Your task to perform on an android device: Open the Play Movies app and select the watchlist tab. Image 0: 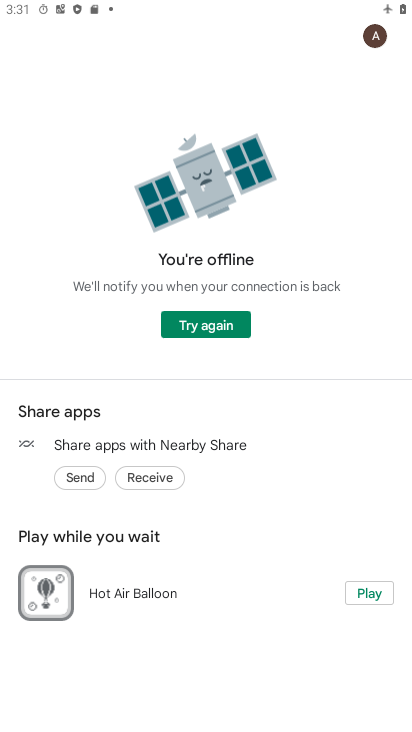
Step 0: press home button
Your task to perform on an android device: Open the Play Movies app and select the watchlist tab. Image 1: 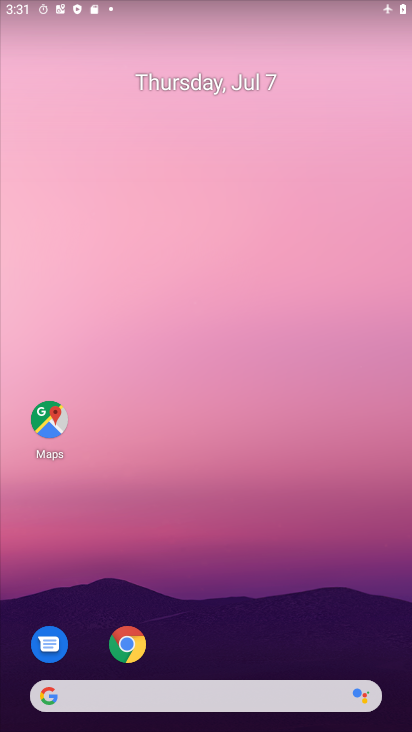
Step 1: drag from (201, 671) to (123, 107)
Your task to perform on an android device: Open the Play Movies app and select the watchlist tab. Image 2: 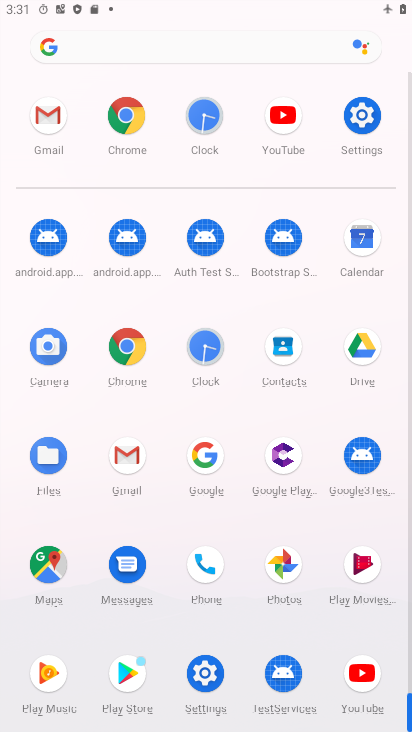
Step 2: click (347, 563)
Your task to perform on an android device: Open the Play Movies app and select the watchlist tab. Image 3: 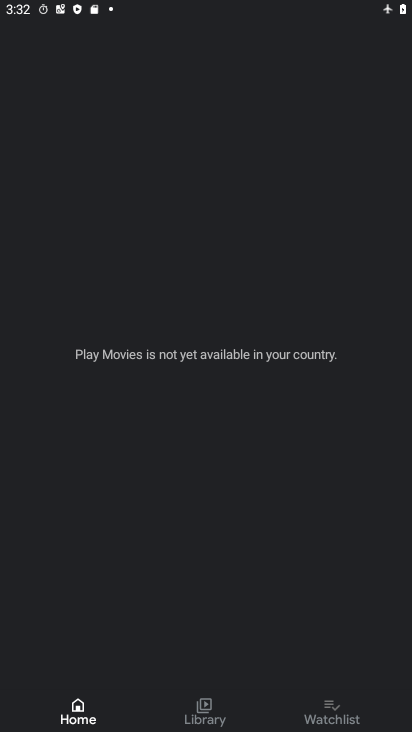
Step 3: click (328, 698)
Your task to perform on an android device: Open the Play Movies app and select the watchlist tab. Image 4: 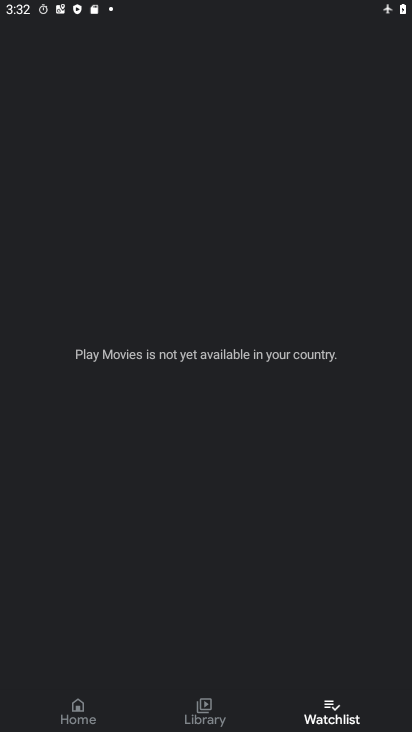
Step 4: task complete